Your task to perform on an android device: Go to Maps Image 0: 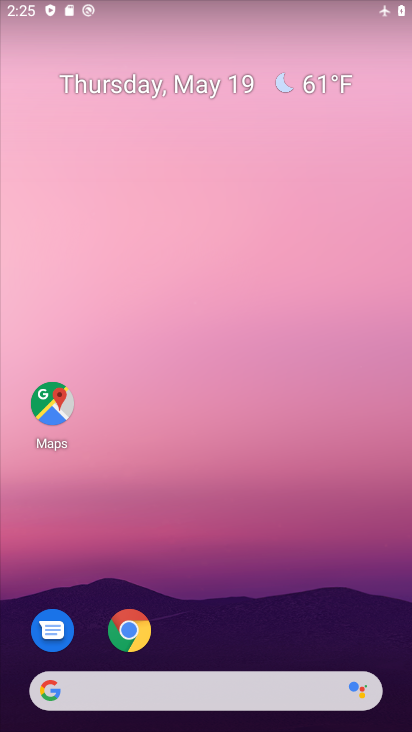
Step 0: click (56, 400)
Your task to perform on an android device: Go to Maps Image 1: 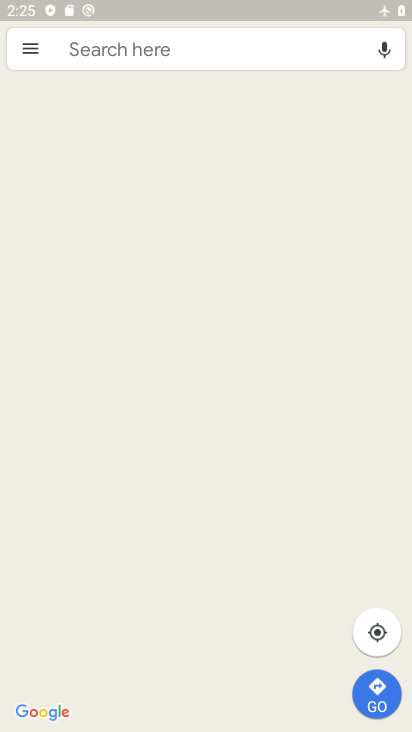
Step 1: task complete